Your task to perform on an android device: turn off notifications settings in the gmail app Image 0: 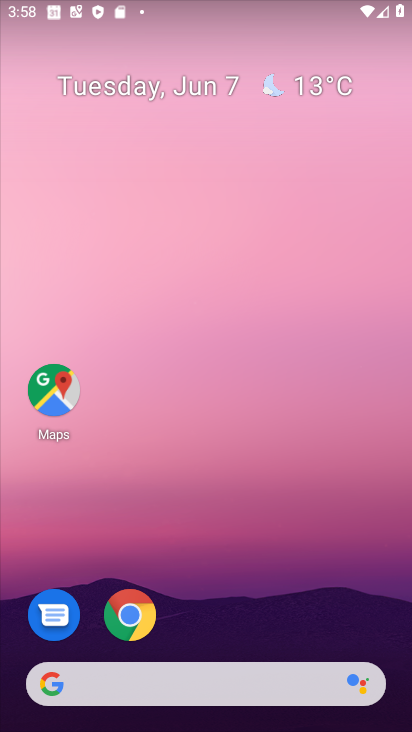
Step 0: drag from (239, 616) to (253, 400)
Your task to perform on an android device: turn off notifications settings in the gmail app Image 1: 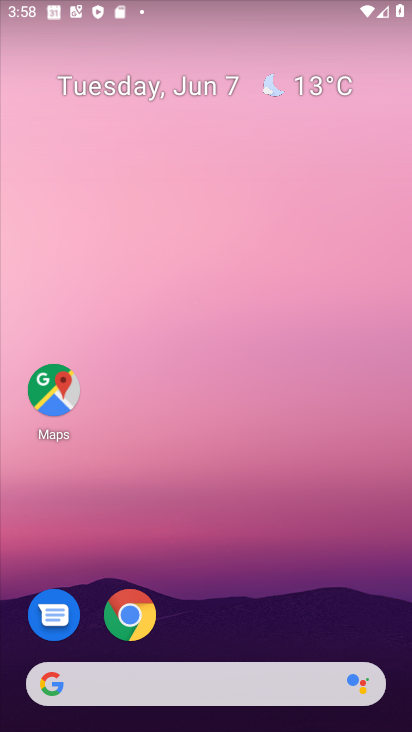
Step 1: drag from (232, 645) to (245, 8)
Your task to perform on an android device: turn off notifications settings in the gmail app Image 2: 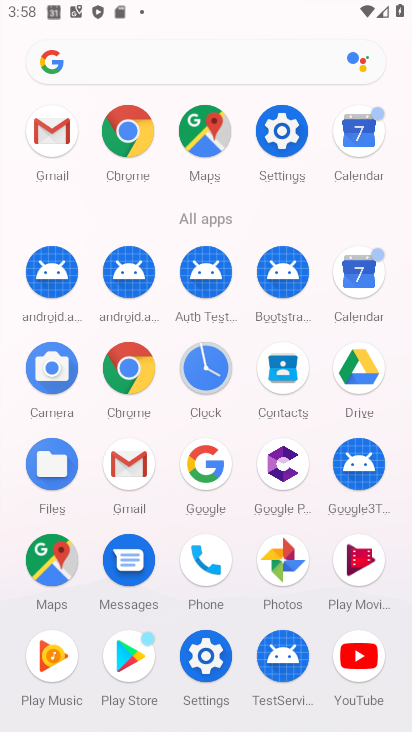
Step 2: click (130, 474)
Your task to perform on an android device: turn off notifications settings in the gmail app Image 3: 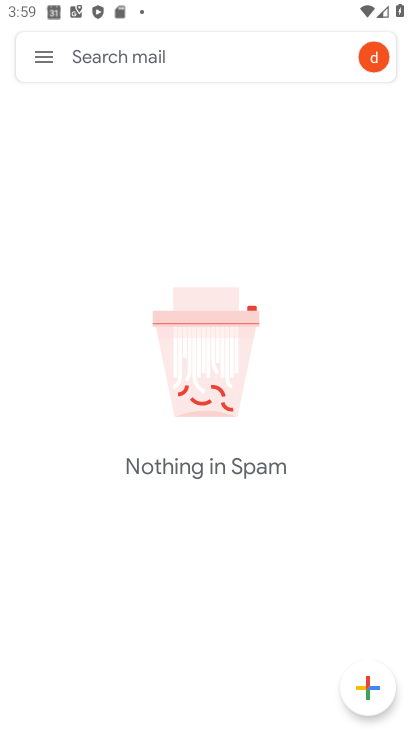
Step 3: click (46, 62)
Your task to perform on an android device: turn off notifications settings in the gmail app Image 4: 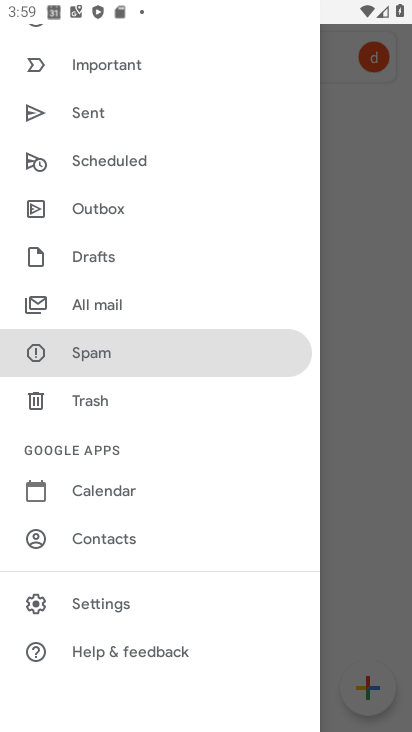
Step 4: click (123, 605)
Your task to perform on an android device: turn off notifications settings in the gmail app Image 5: 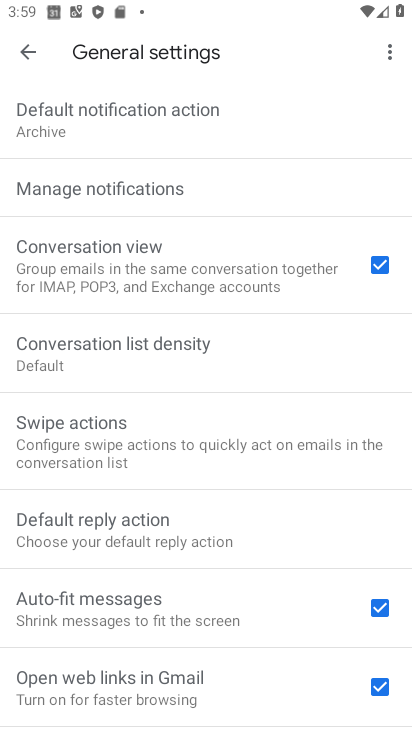
Step 5: click (140, 188)
Your task to perform on an android device: turn off notifications settings in the gmail app Image 6: 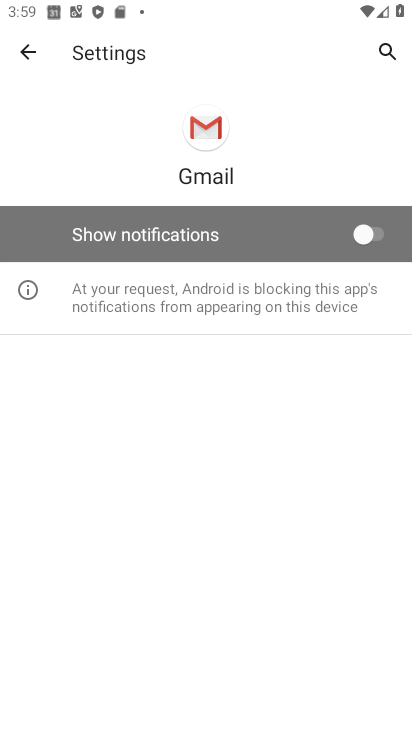
Step 6: task complete